Your task to perform on an android device: Show me productivity apps on the Play Store Image 0: 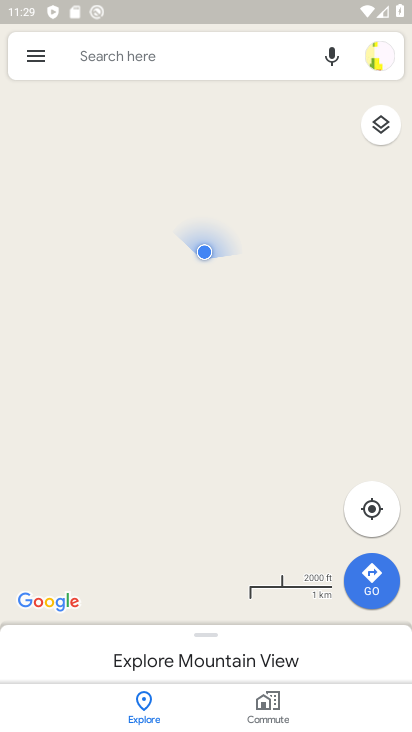
Step 0: press home button
Your task to perform on an android device: Show me productivity apps on the Play Store Image 1: 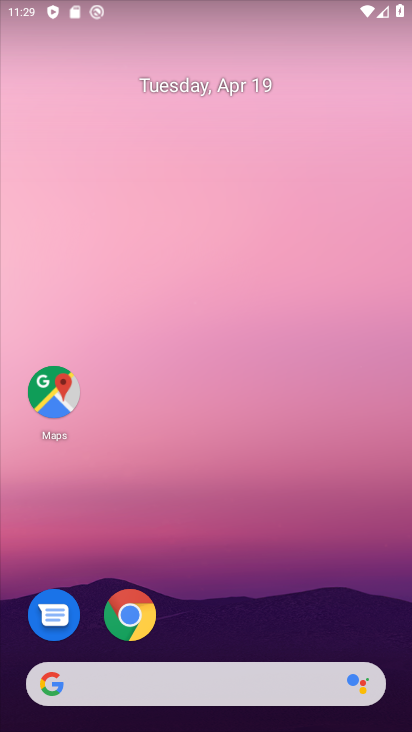
Step 1: drag from (244, 565) to (258, 199)
Your task to perform on an android device: Show me productivity apps on the Play Store Image 2: 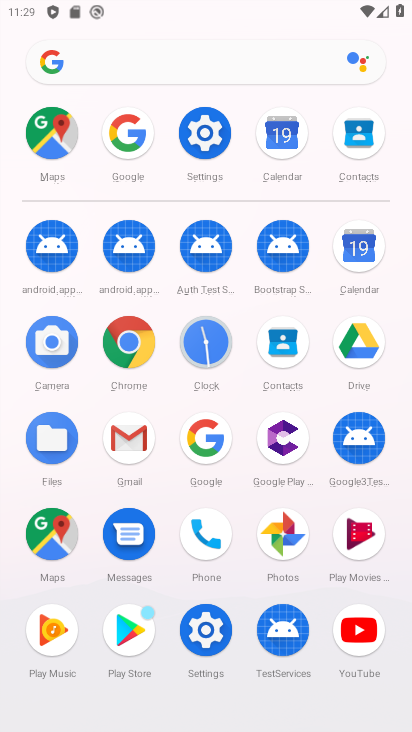
Step 2: click (122, 634)
Your task to perform on an android device: Show me productivity apps on the Play Store Image 3: 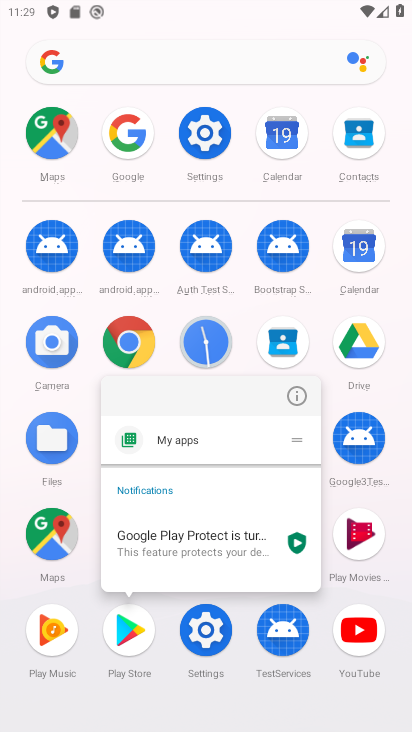
Step 3: click (122, 634)
Your task to perform on an android device: Show me productivity apps on the Play Store Image 4: 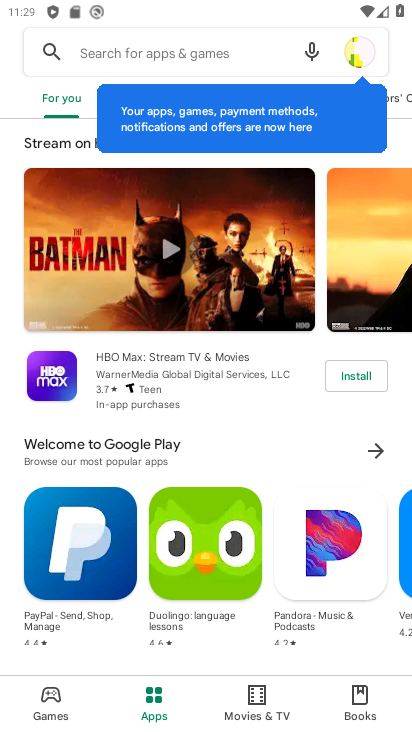
Step 4: task complete